Your task to perform on an android device: Open Yahoo.com Image 0: 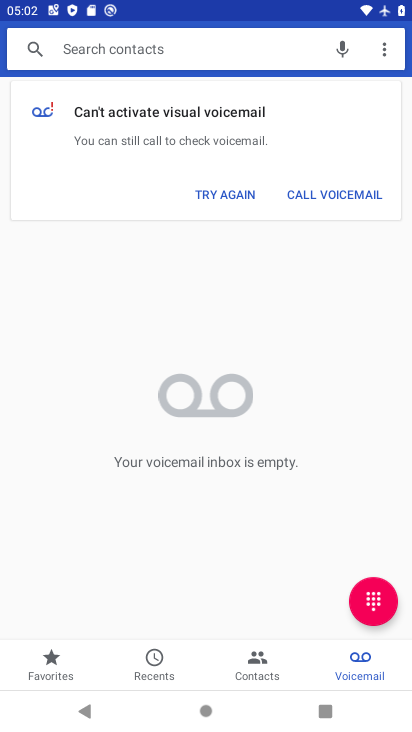
Step 0: press home button
Your task to perform on an android device: Open Yahoo.com Image 1: 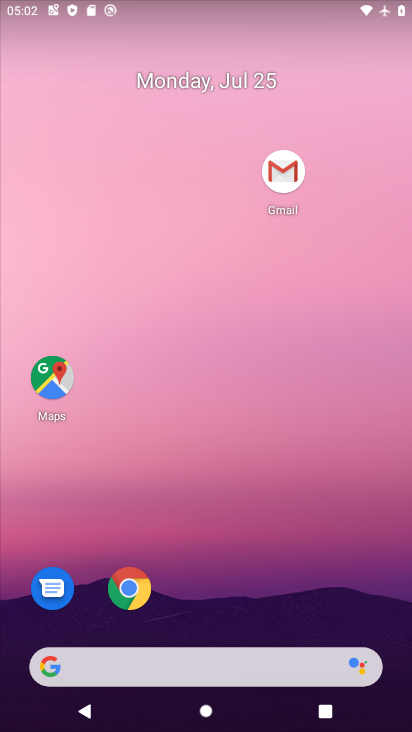
Step 1: drag from (319, 489) to (297, 42)
Your task to perform on an android device: Open Yahoo.com Image 2: 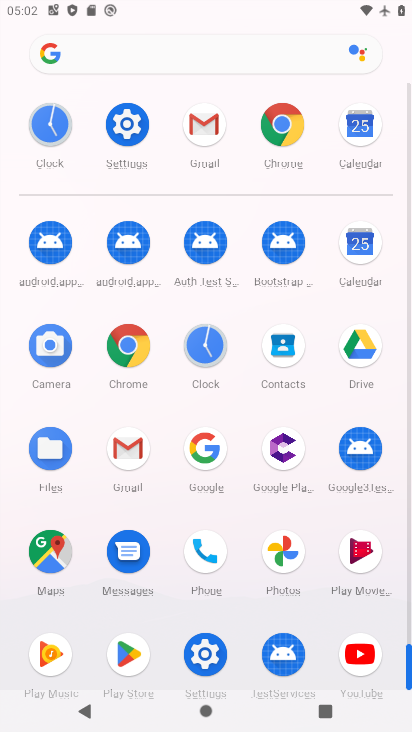
Step 2: click (274, 112)
Your task to perform on an android device: Open Yahoo.com Image 3: 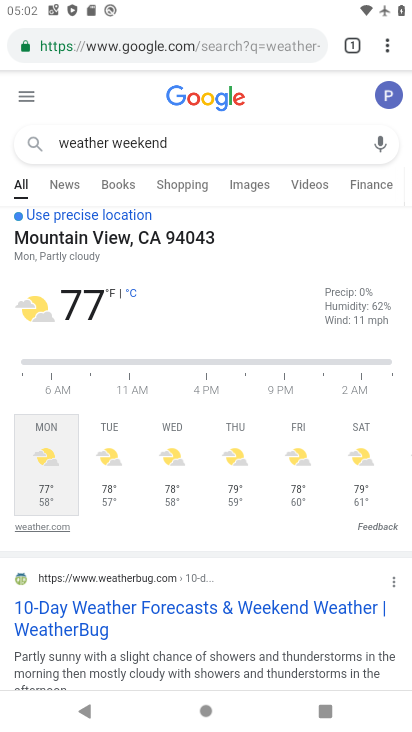
Step 3: click (232, 52)
Your task to perform on an android device: Open Yahoo.com Image 4: 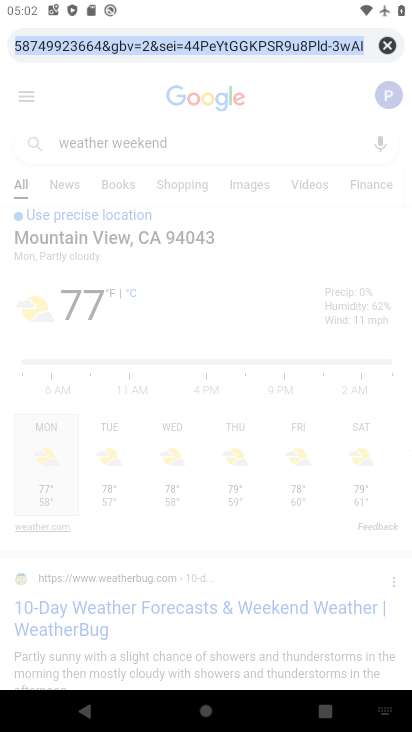
Step 4: type "yahoo.com"
Your task to perform on an android device: Open Yahoo.com Image 5: 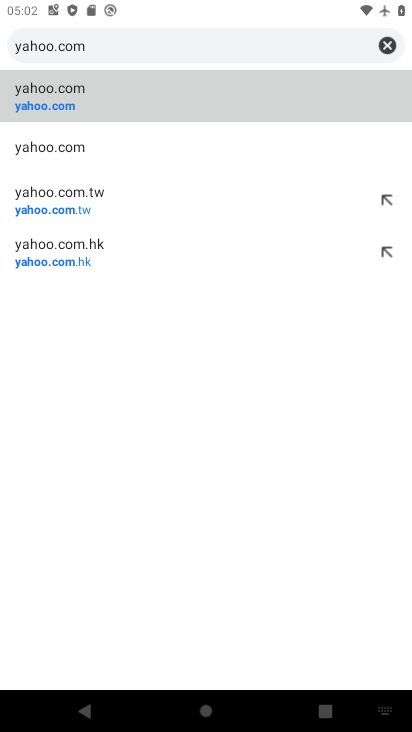
Step 5: click (55, 110)
Your task to perform on an android device: Open Yahoo.com Image 6: 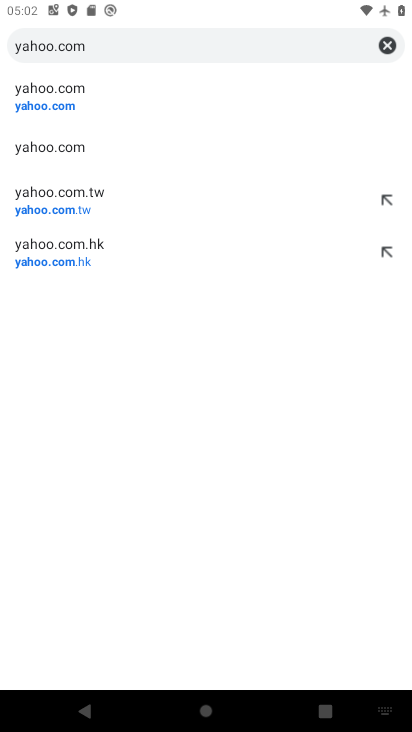
Step 6: click (57, 100)
Your task to perform on an android device: Open Yahoo.com Image 7: 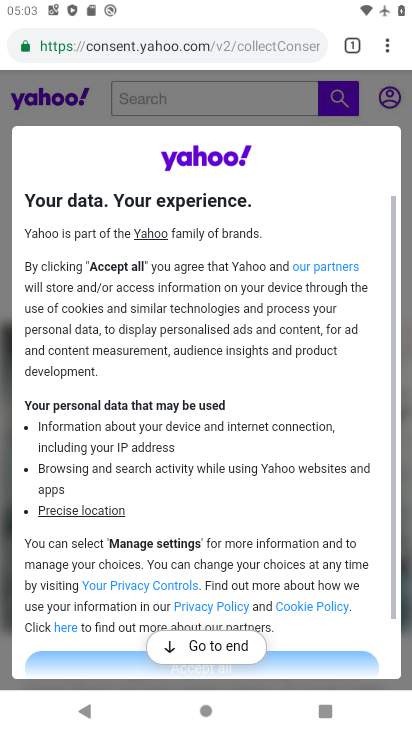
Step 7: task complete